Your task to perform on an android device: turn notification dots off Image 0: 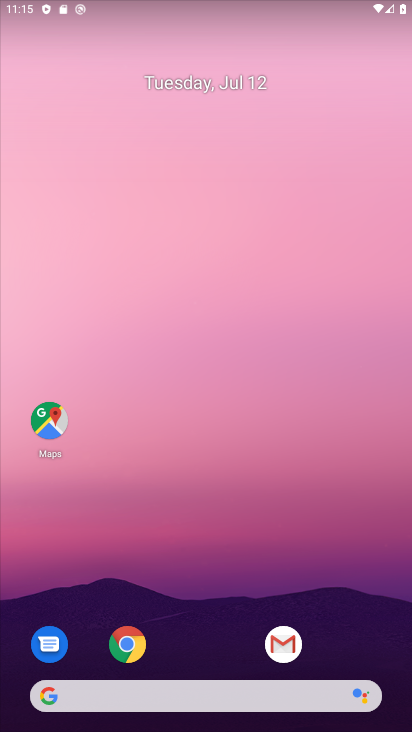
Step 0: drag from (214, 717) to (187, 132)
Your task to perform on an android device: turn notification dots off Image 1: 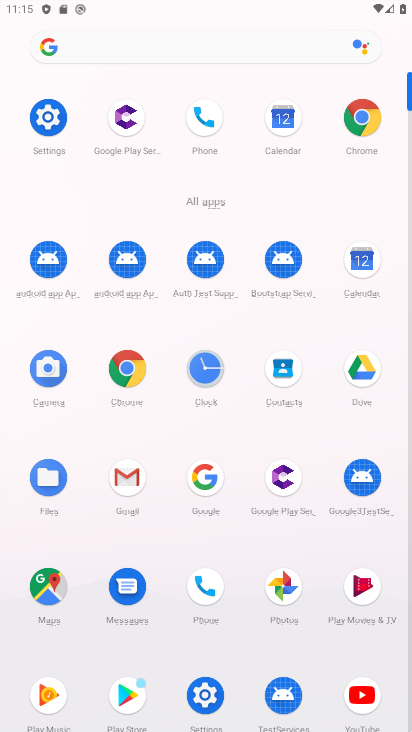
Step 1: drag from (36, 120) to (250, 296)
Your task to perform on an android device: turn notification dots off Image 2: 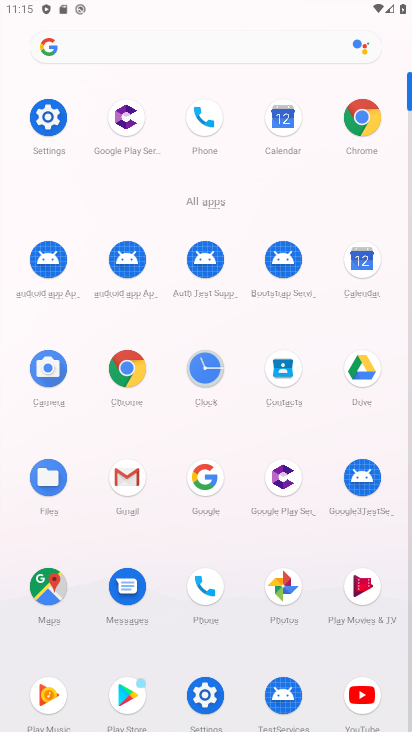
Step 2: drag from (205, 695) to (220, 653)
Your task to perform on an android device: turn notification dots off Image 3: 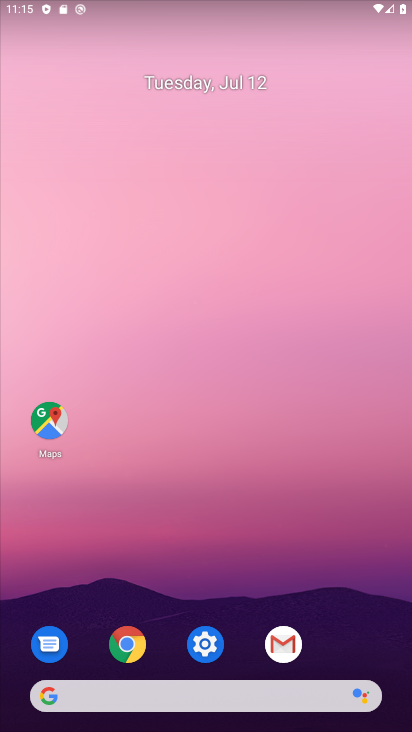
Step 3: click (205, 643)
Your task to perform on an android device: turn notification dots off Image 4: 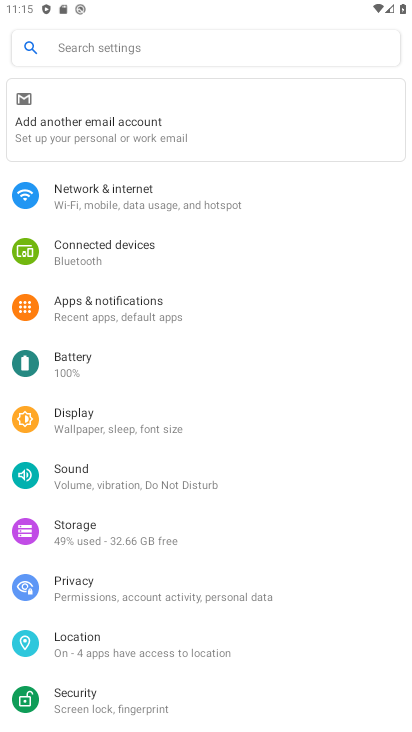
Step 4: click (140, 52)
Your task to perform on an android device: turn notification dots off Image 5: 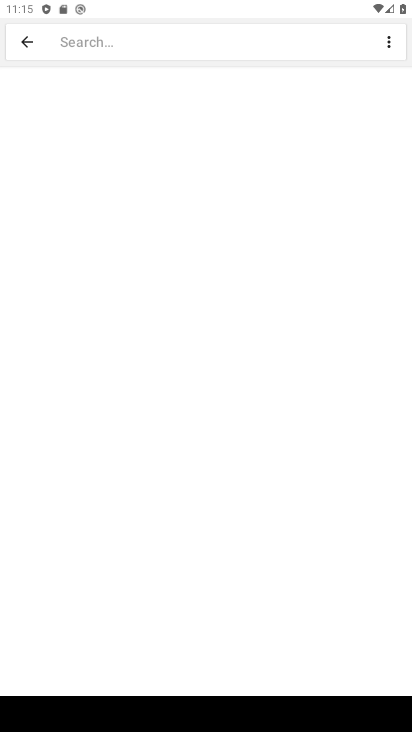
Step 5: drag from (384, 709) to (357, 577)
Your task to perform on an android device: turn notification dots off Image 6: 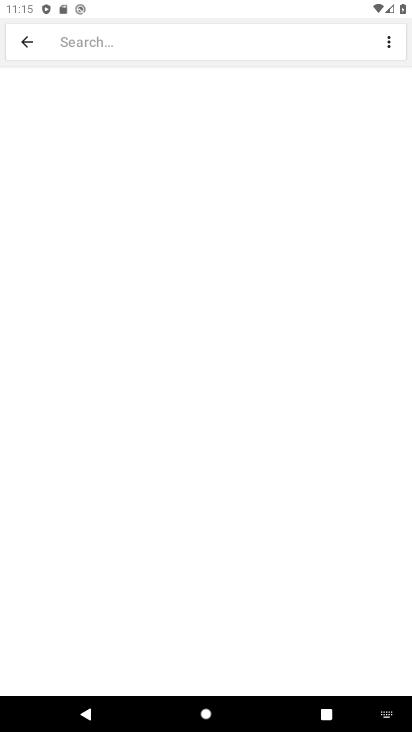
Step 6: click (389, 708)
Your task to perform on an android device: turn notification dots off Image 7: 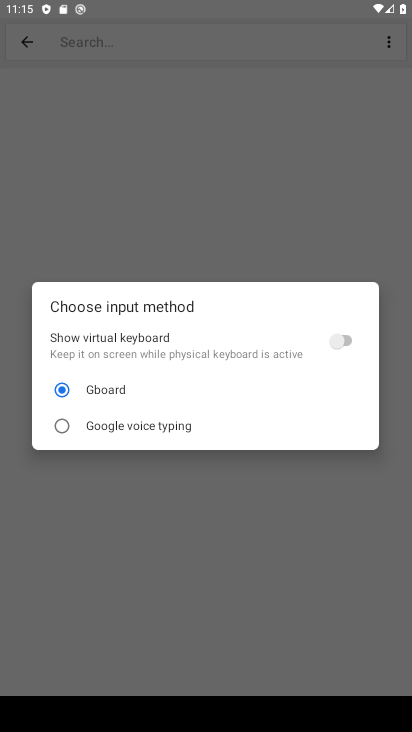
Step 7: click (343, 334)
Your task to perform on an android device: turn notification dots off Image 8: 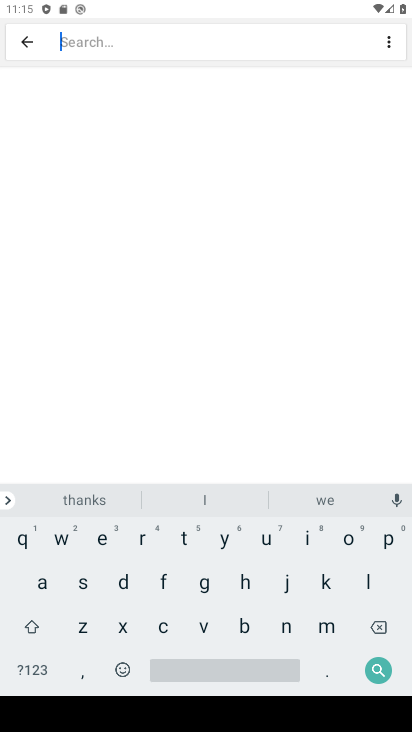
Step 8: click (112, 586)
Your task to perform on an android device: turn notification dots off Image 9: 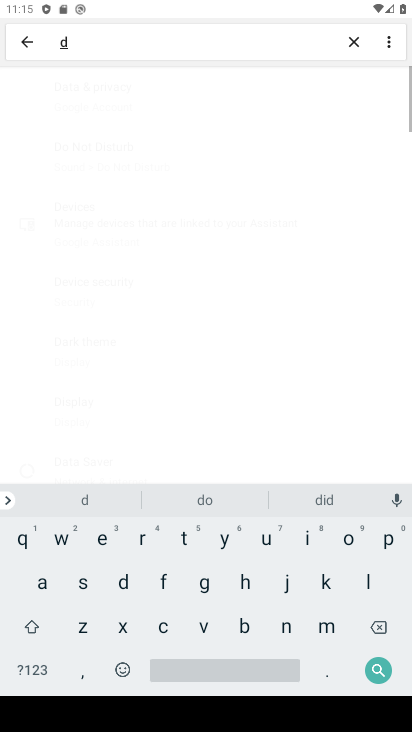
Step 9: click (355, 535)
Your task to perform on an android device: turn notification dots off Image 10: 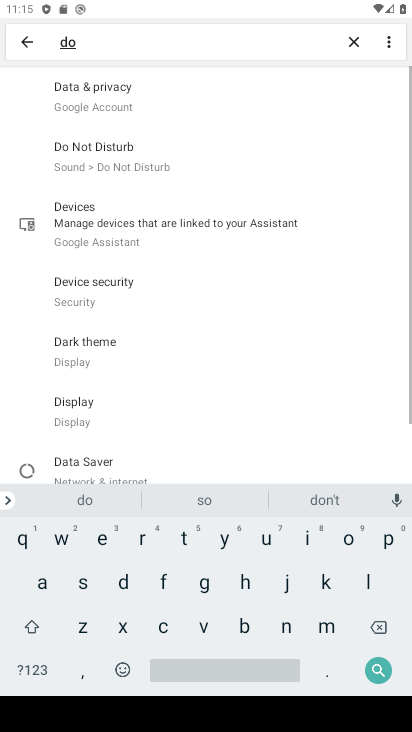
Step 10: click (186, 540)
Your task to perform on an android device: turn notification dots off Image 11: 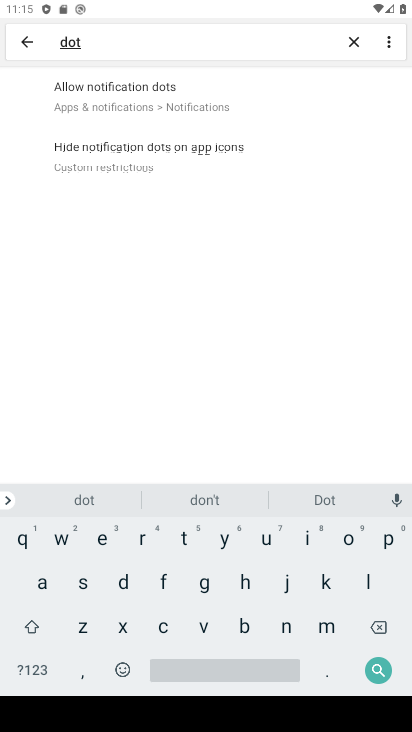
Step 11: click (135, 95)
Your task to perform on an android device: turn notification dots off Image 12: 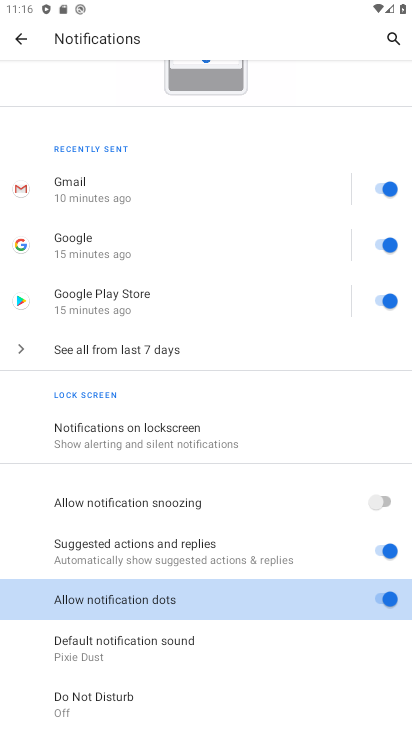
Step 12: click (276, 602)
Your task to perform on an android device: turn notification dots off Image 13: 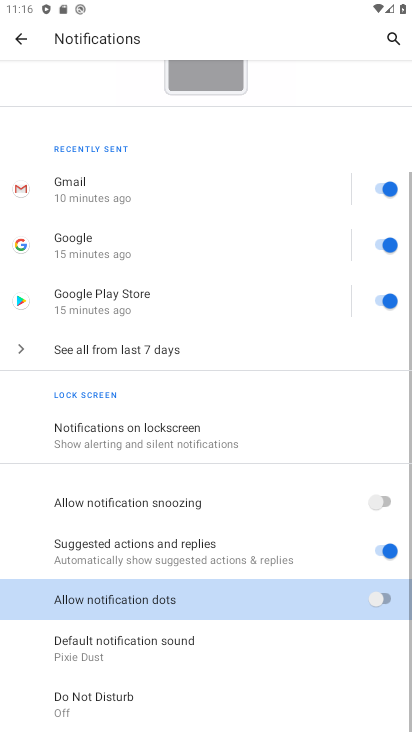
Step 13: task complete